Your task to perform on an android device: Open Youtube and go to "Your channel" Image 0: 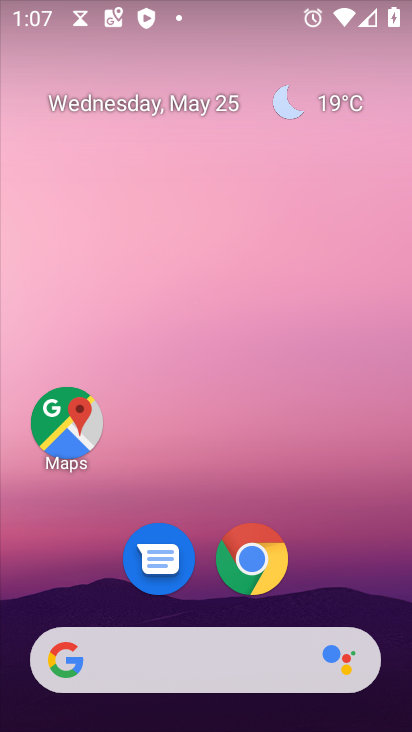
Step 0: drag from (351, 558) to (411, 282)
Your task to perform on an android device: Open Youtube and go to "Your channel" Image 1: 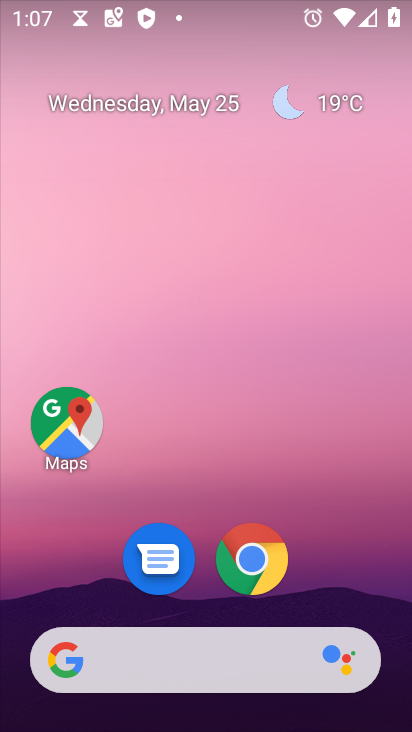
Step 1: drag from (331, 569) to (372, 82)
Your task to perform on an android device: Open Youtube and go to "Your channel" Image 2: 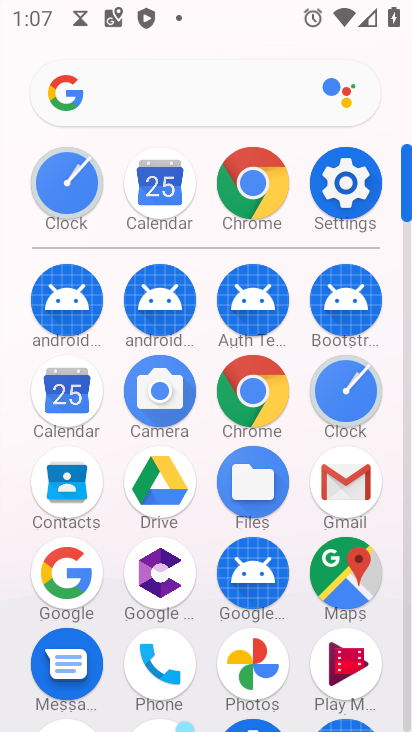
Step 2: drag from (395, 580) to (410, 350)
Your task to perform on an android device: Open Youtube and go to "Your channel" Image 3: 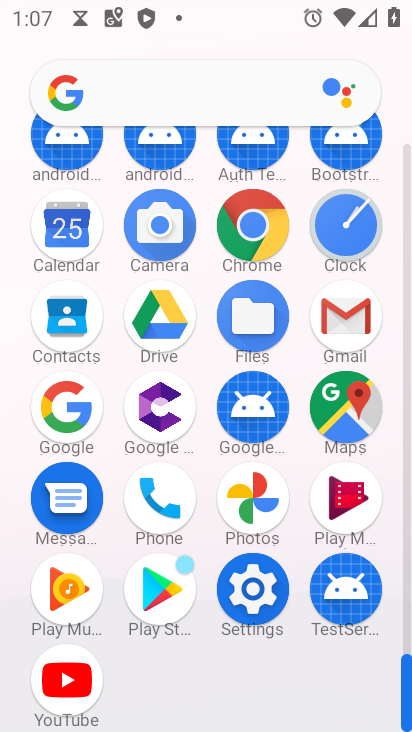
Step 3: drag from (394, 571) to (407, 248)
Your task to perform on an android device: Open Youtube and go to "Your channel" Image 4: 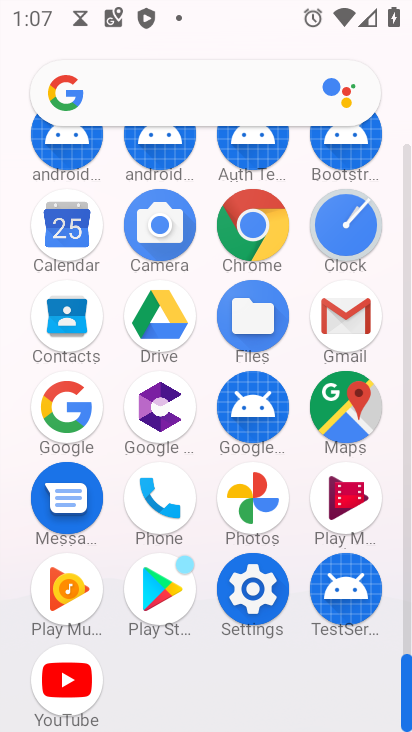
Step 4: click (61, 674)
Your task to perform on an android device: Open Youtube and go to "Your channel" Image 5: 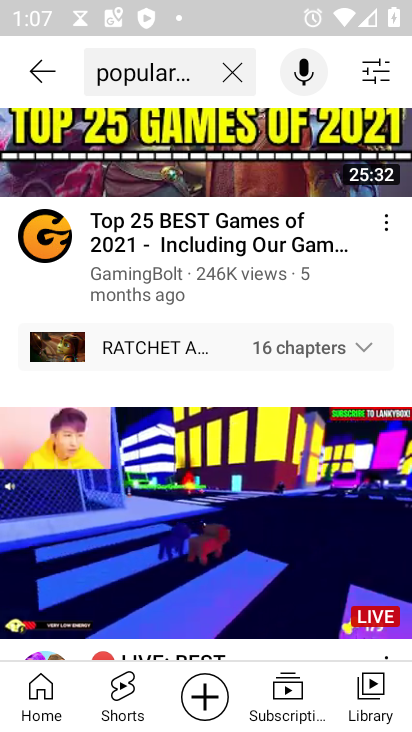
Step 5: click (54, 68)
Your task to perform on an android device: Open Youtube and go to "Your channel" Image 6: 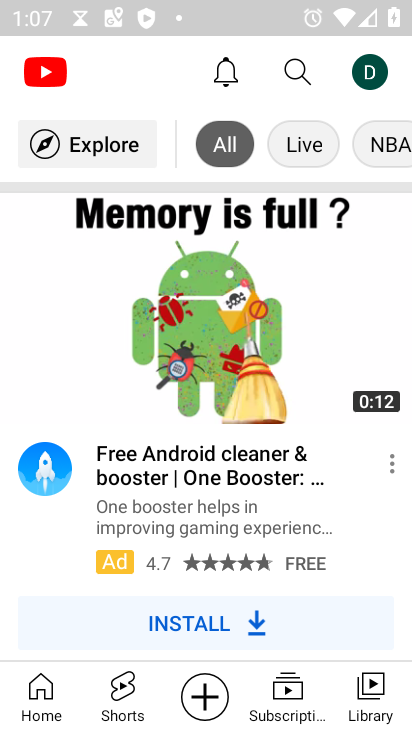
Step 6: click (366, 76)
Your task to perform on an android device: Open Youtube and go to "Your channel" Image 7: 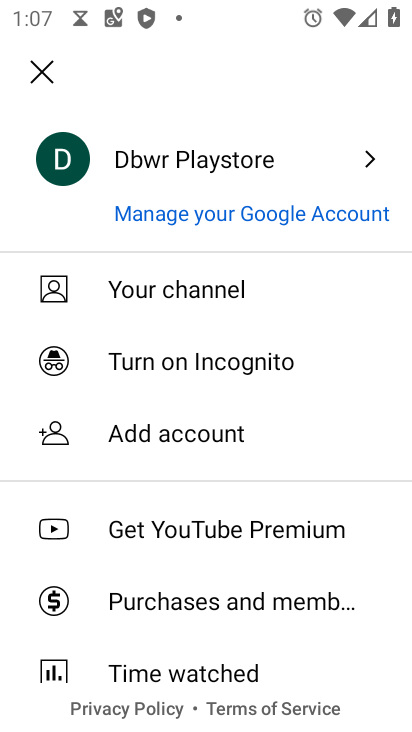
Step 7: click (106, 294)
Your task to perform on an android device: Open Youtube and go to "Your channel" Image 8: 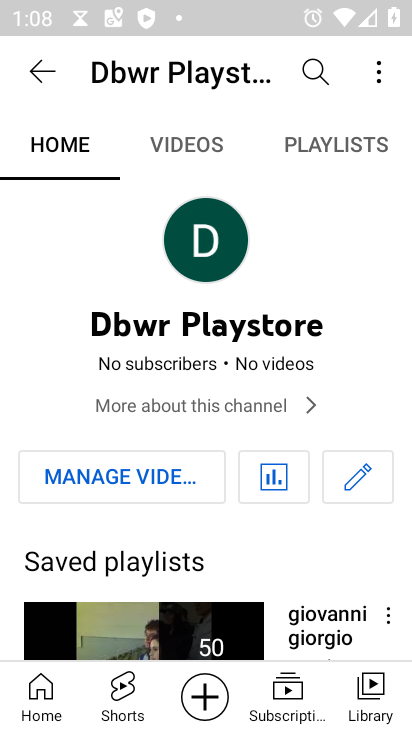
Step 8: task complete